Your task to perform on an android device: What is the recent news? Image 0: 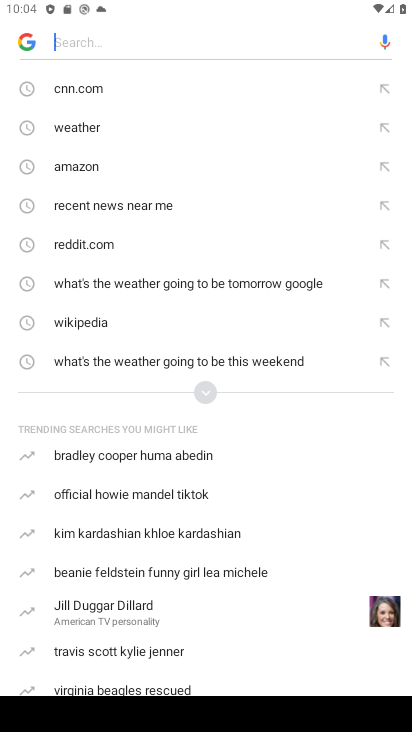
Step 0: click (136, 210)
Your task to perform on an android device: What is the recent news? Image 1: 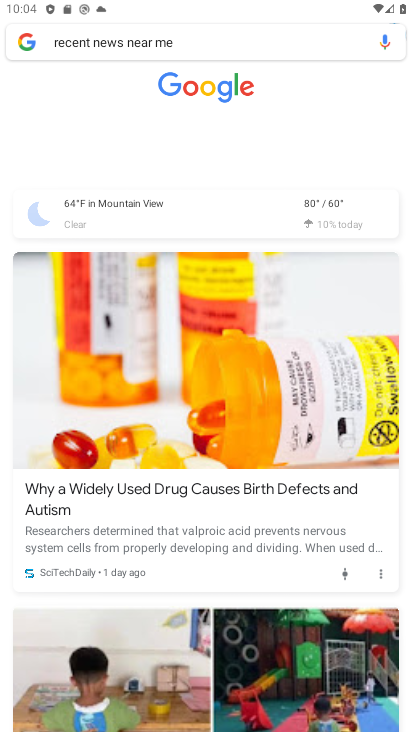
Step 1: task complete